Your task to perform on an android device: open a bookmark in the chrome app Image 0: 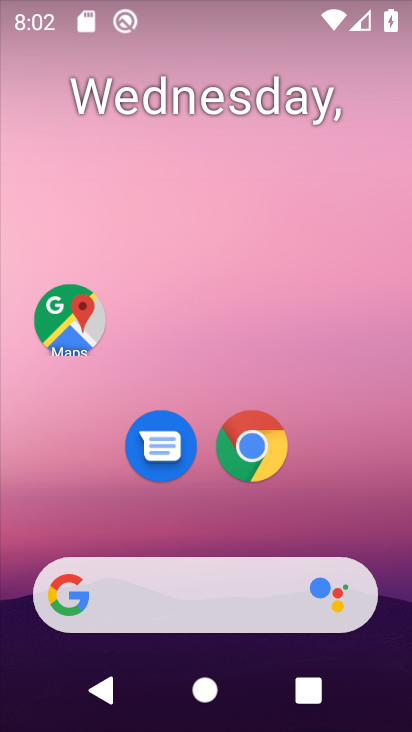
Step 0: press home button
Your task to perform on an android device: open a bookmark in the chrome app Image 1: 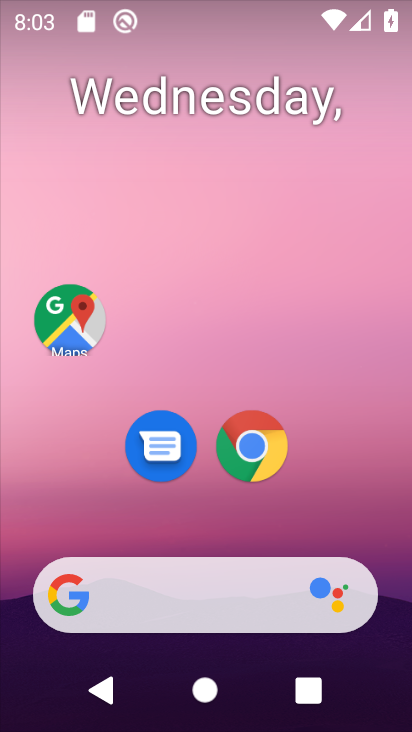
Step 1: click (253, 437)
Your task to perform on an android device: open a bookmark in the chrome app Image 2: 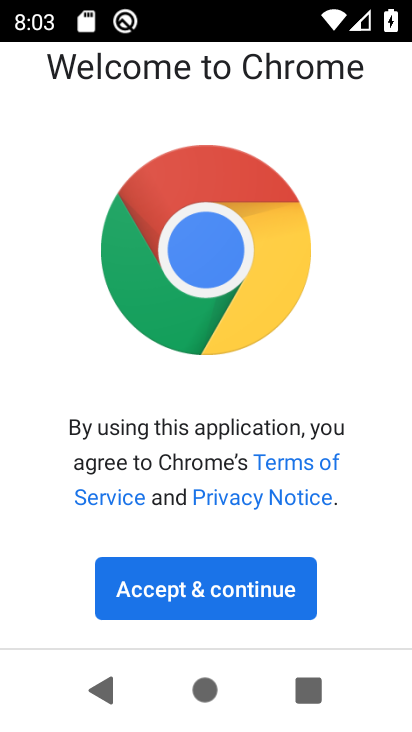
Step 2: click (220, 599)
Your task to perform on an android device: open a bookmark in the chrome app Image 3: 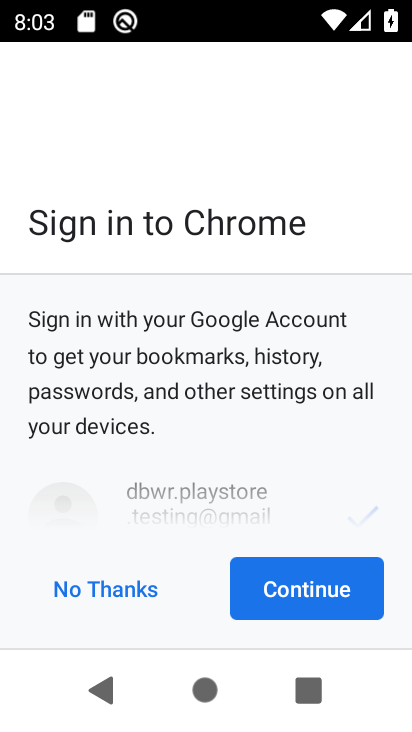
Step 3: click (279, 590)
Your task to perform on an android device: open a bookmark in the chrome app Image 4: 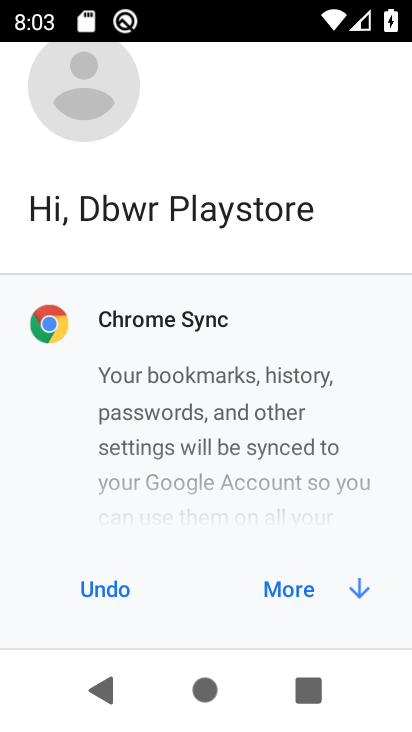
Step 4: click (300, 591)
Your task to perform on an android device: open a bookmark in the chrome app Image 5: 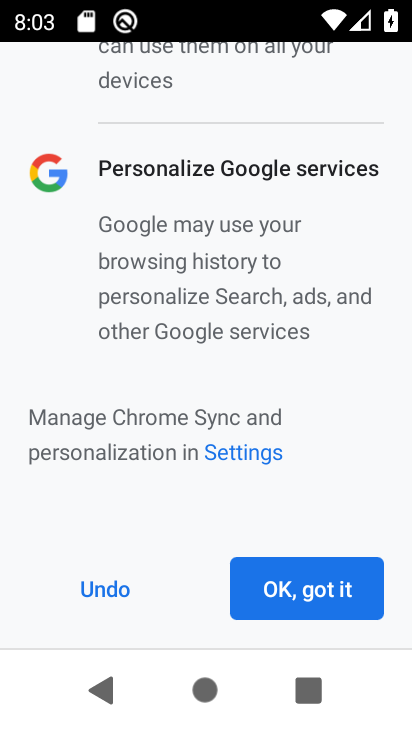
Step 5: click (295, 584)
Your task to perform on an android device: open a bookmark in the chrome app Image 6: 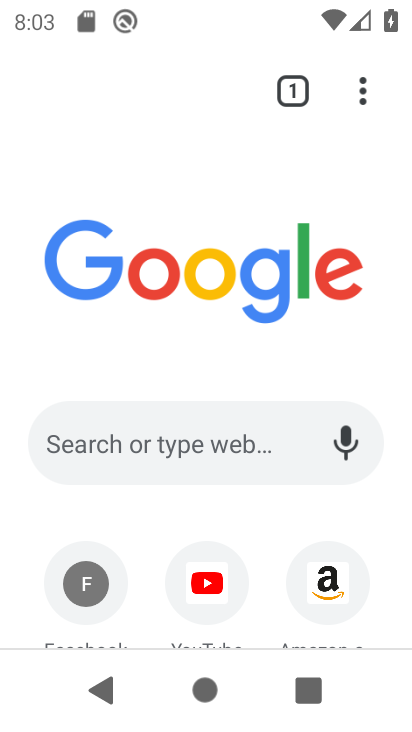
Step 6: click (369, 93)
Your task to perform on an android device: open a bookmark in the chrome app Image 7: 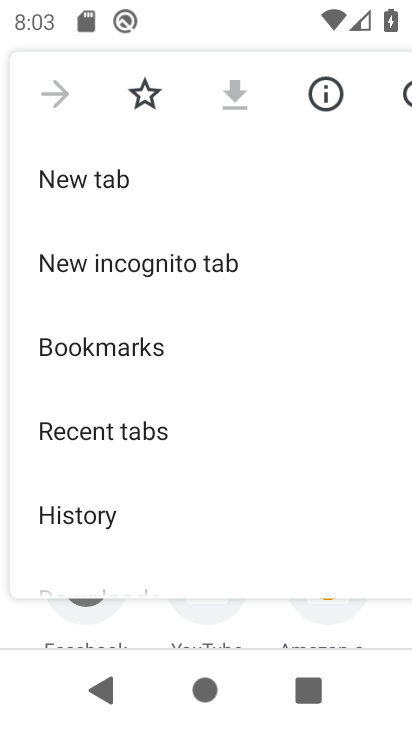
Step 7: click (146, 346)
Your task to perform on an android device: open a bookmark in the chrome app Image 8: 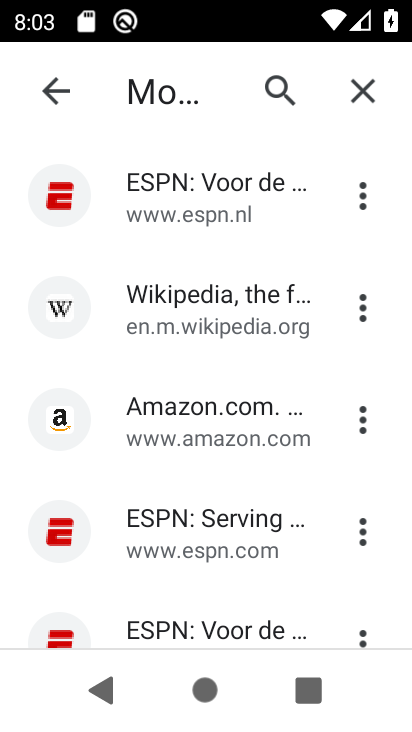
Step 8: drag from (213, 587) to (209, 138)
Your task to perform on an android device: open a bookmark in the chrome app Image 9: 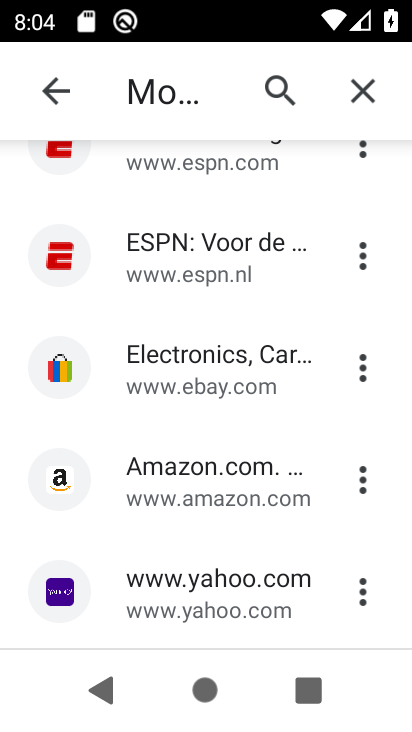
Step 9: click (192, 473)
Your task to perform on an android device: open a bookmark in the chrome app Image 10: 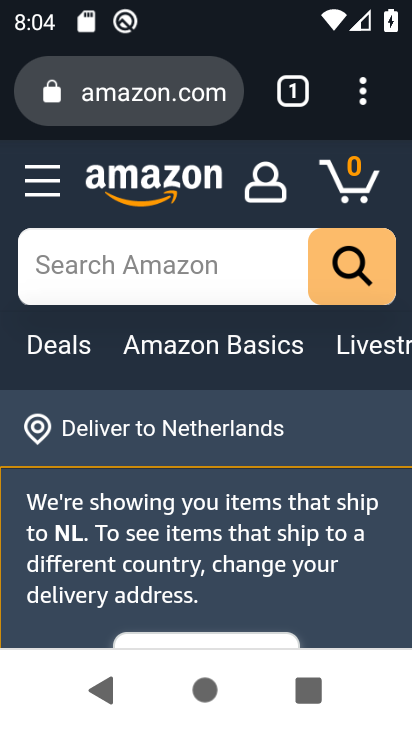
Step 10: task complete